Your task to perform on an android device: What is the news today? Image 0: 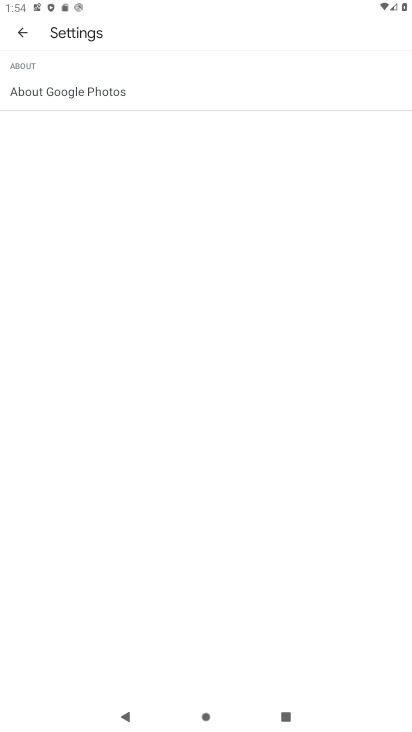
Step 0: press home button
Your task to perform on an android device: What is the news today? Image 1: 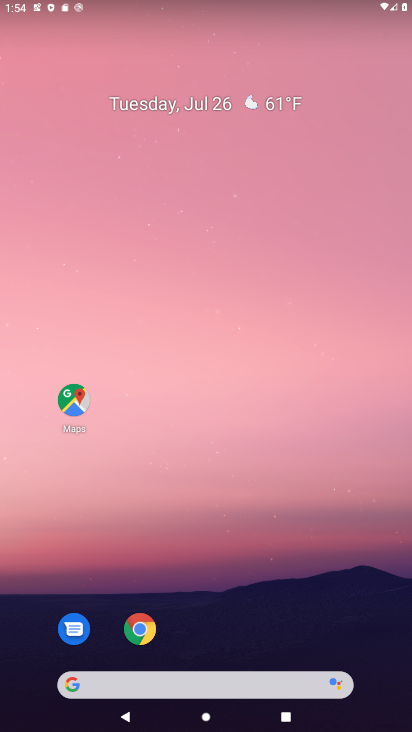
Step 1: click (196, 693)
Your task to perform on an android device: What is the news today? Image 2: 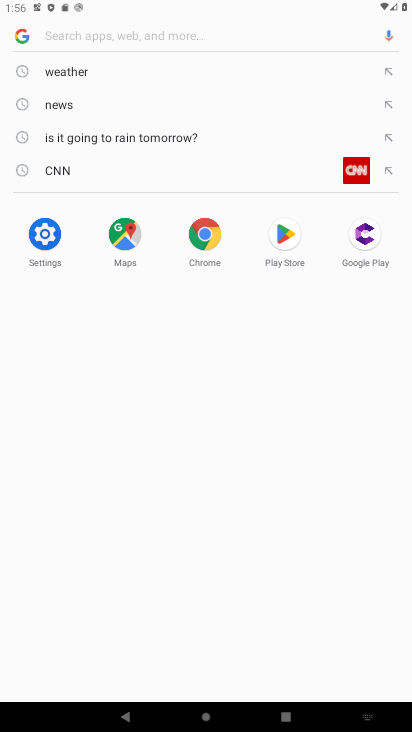
Step 2: click (42, 100)
Your task to perform on an android device: What is the news today? Image 3: 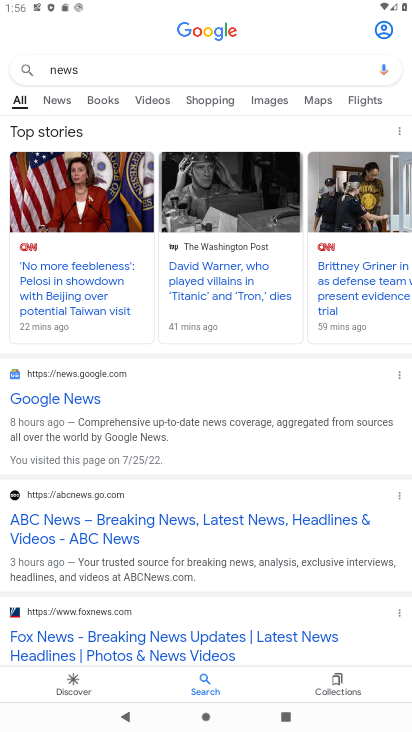
Step 3: task complete